Your task to perform on an android device: Open notification settings Image 0: 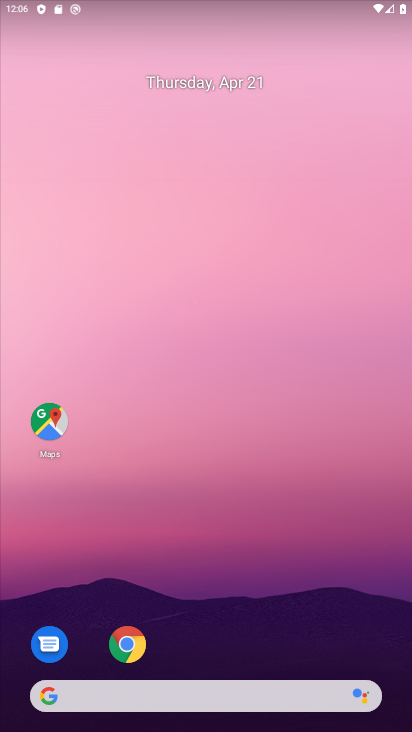
Step 0: drag from (206, 647) to (279, 83)
Your task to perform on an android device: Open notification settings Image 1: 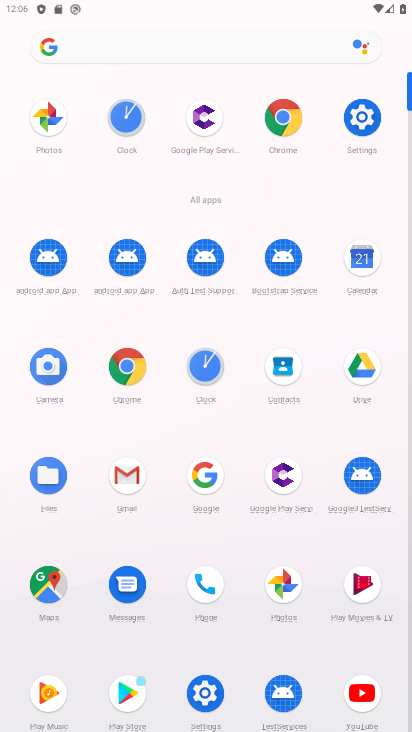
Step 1: click (366, 126)
Your task to perform on an android device: Open notification settings Image 2: 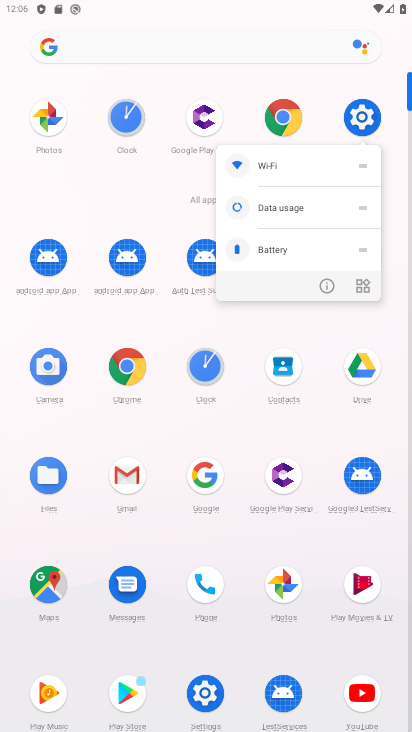
Step 2: click (355, 108)
Your task to perform on an android device: Open notification settings Image 3: 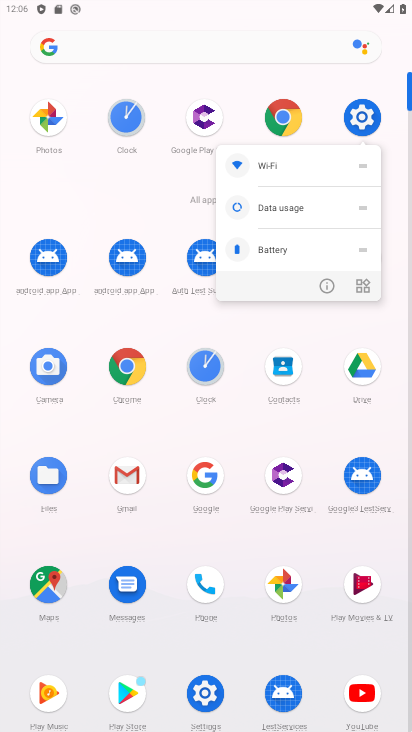
Step 3: click (370, 105)
Your task to perform on an android device: Open notification settings Image 4: 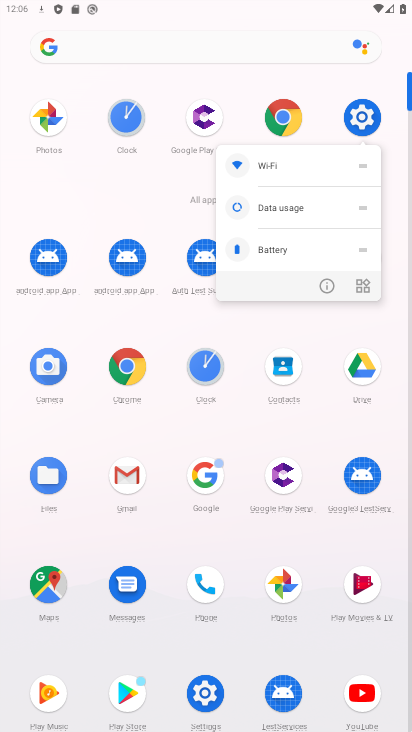
Step 4: click (364, 117)
Your task to perform on an android device: Open notification settings Image 5: 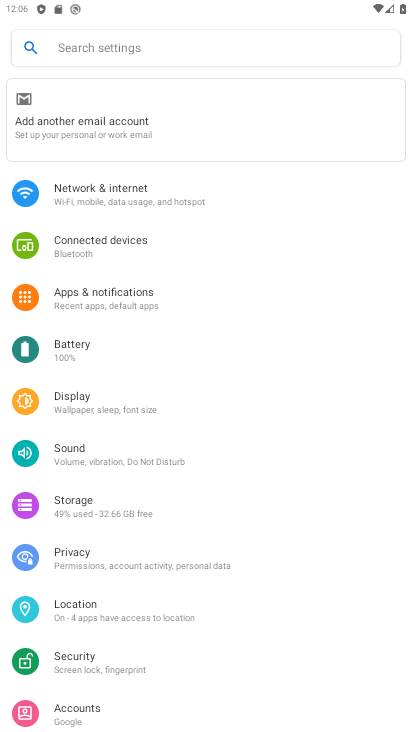
Step 5: click (111, 293)
Your task to perform on an android device: Open notification settings Image 6: 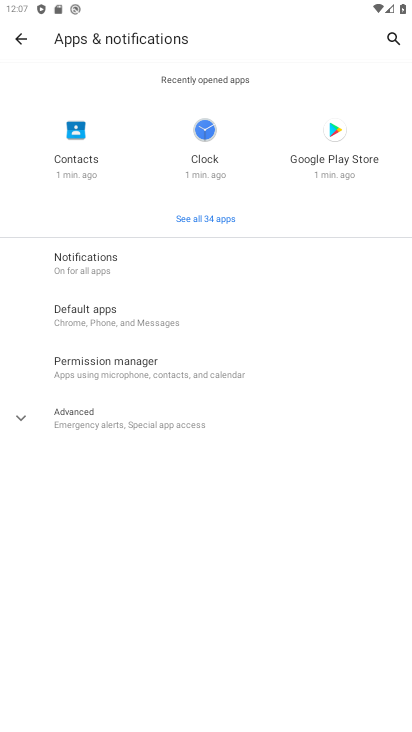
Step 6: task complete